Your task to perform on an android device: add a label to a message in the gmail app Image 0: 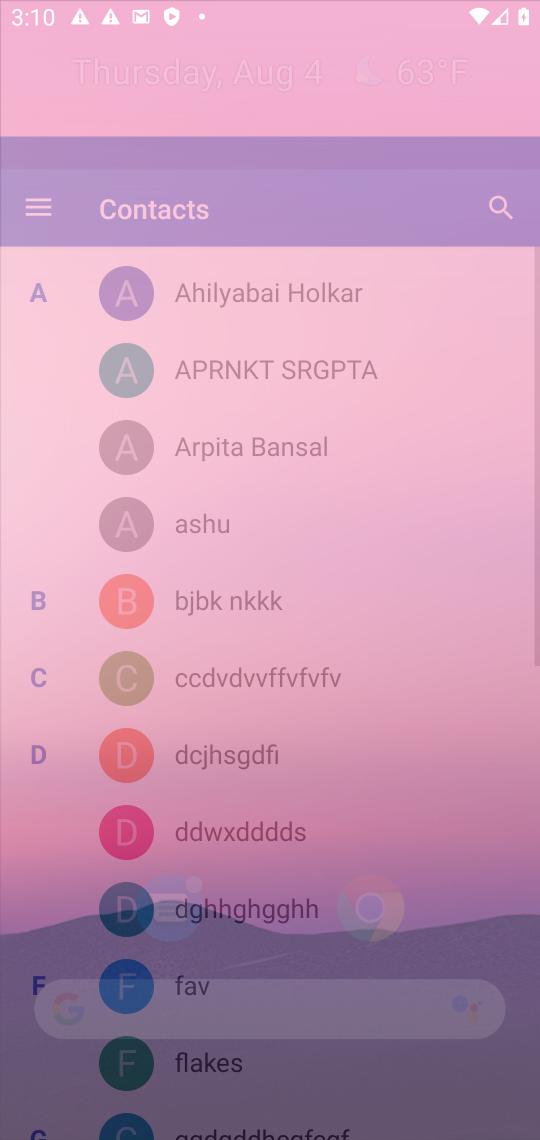
Step 0: press home button
Your task to perform on an android device: add a label to a message in the gmail app Image 1: 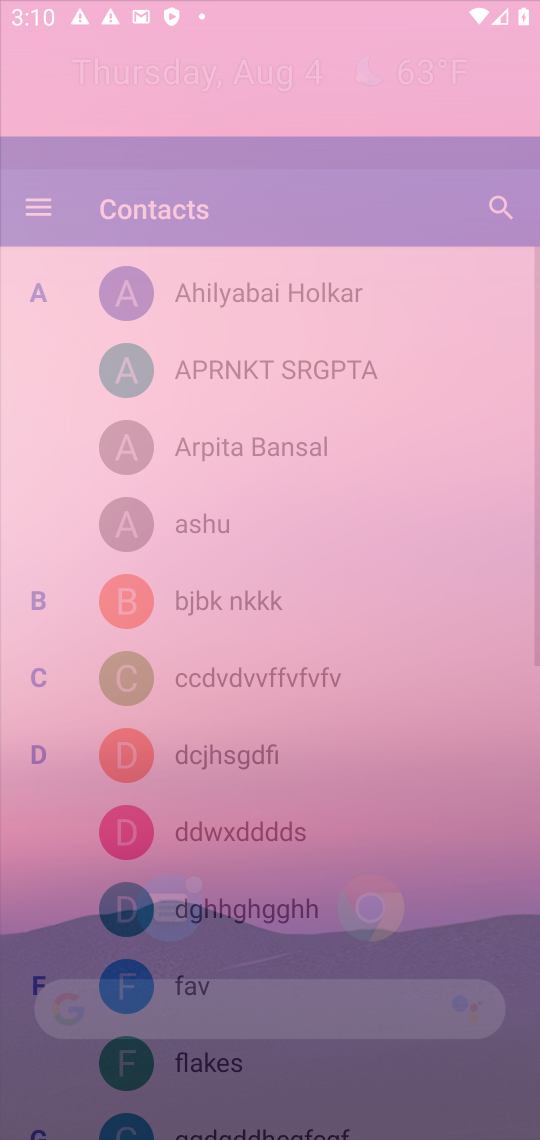
Step 1: click (332, 252)
Your task to perform on an android device: add a label to a message in the gmail app Image 2: 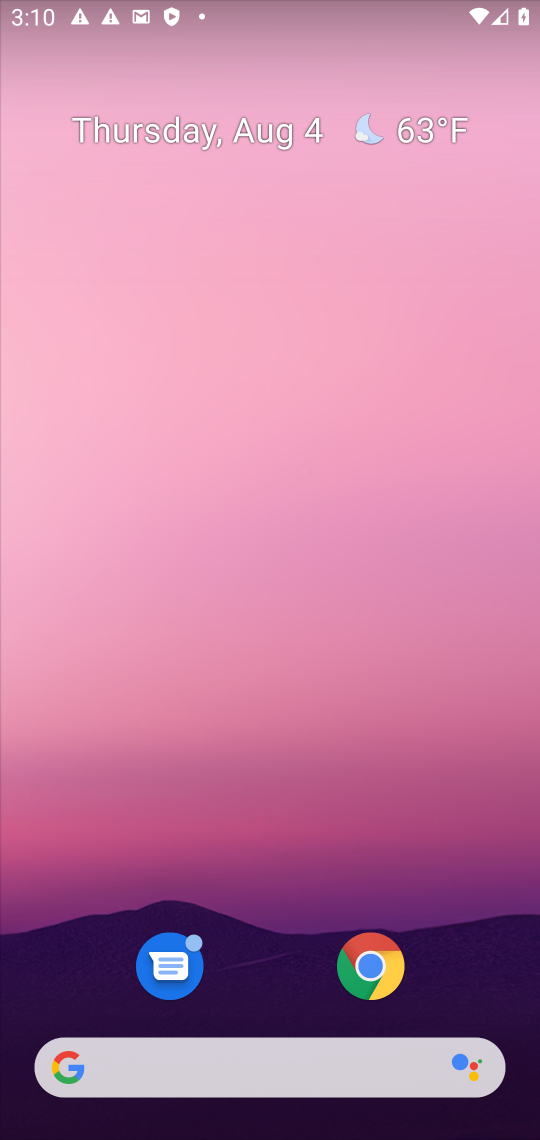
Step 2: drag from (276, 1003) to (276, 314)
Your task to perform on an android device: add a label to a message in the gmail app Image 3: 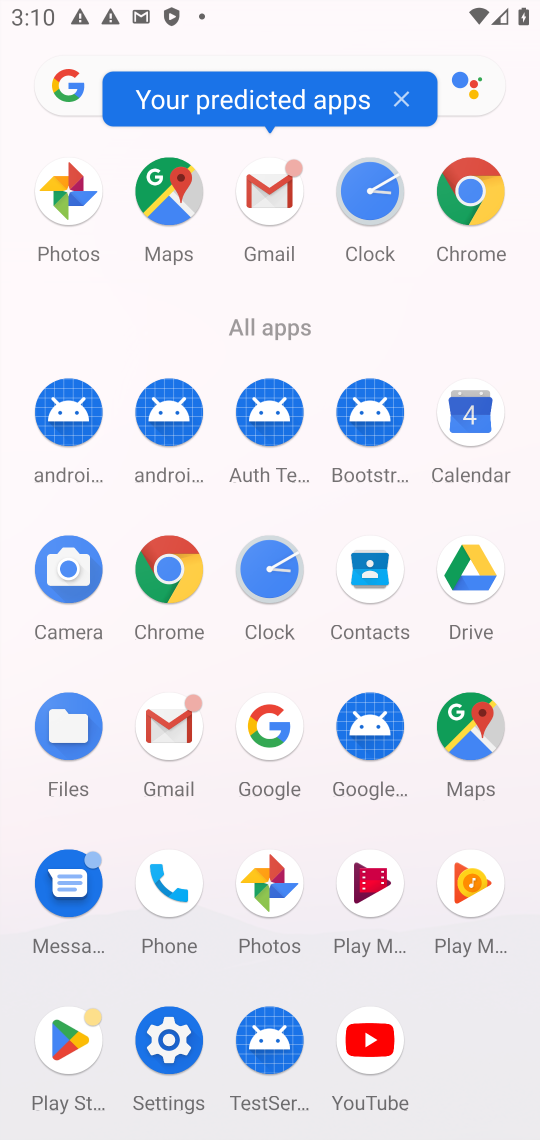
Step 3: click (268, 203)
Your task to perform on an android device: add a label to a message in the gmail app Image 4: 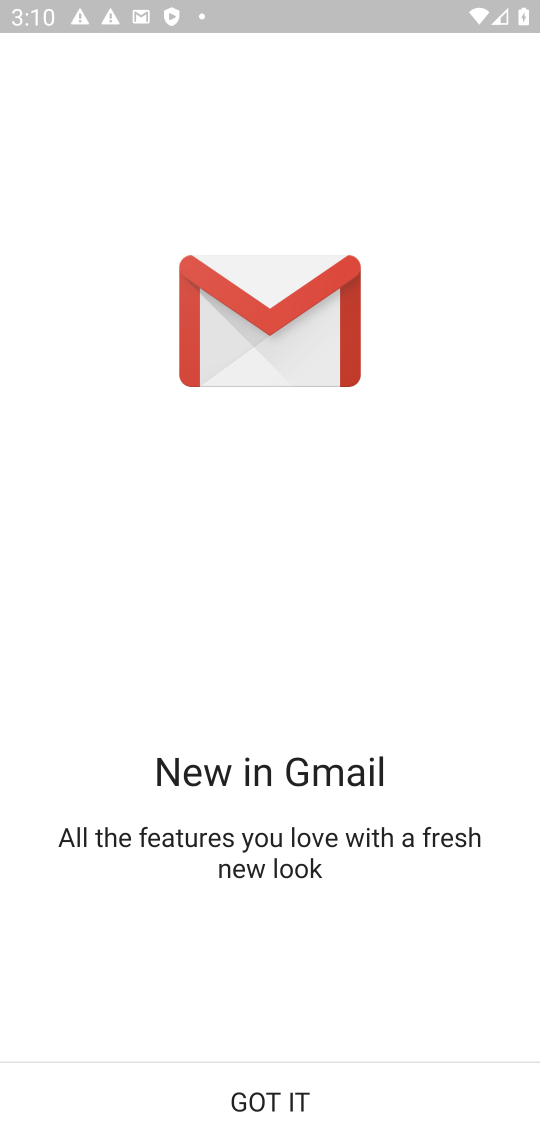
Step 4: click (309, 1124)
Your task to perform on an android device: add a label to a message in the gmail app Image 5: 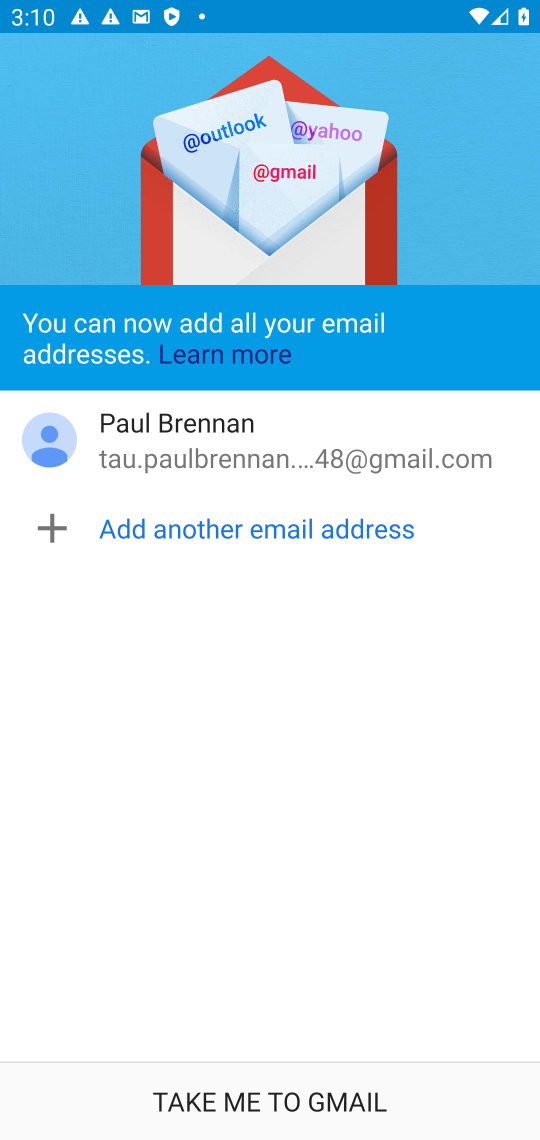
Step 5: click (305, 1117)
Your task to perform on an android device: add a label to a message in the gmail app Image 6: 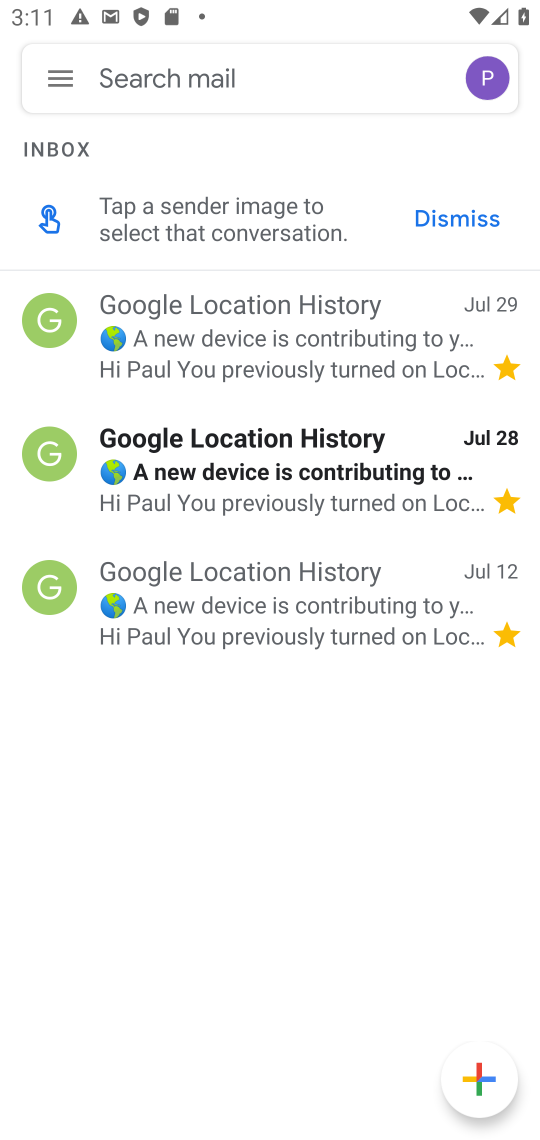
Step 6: click (269, 338)
Your task to perform on an android device: add a label to a message in the gmail app Image 7: 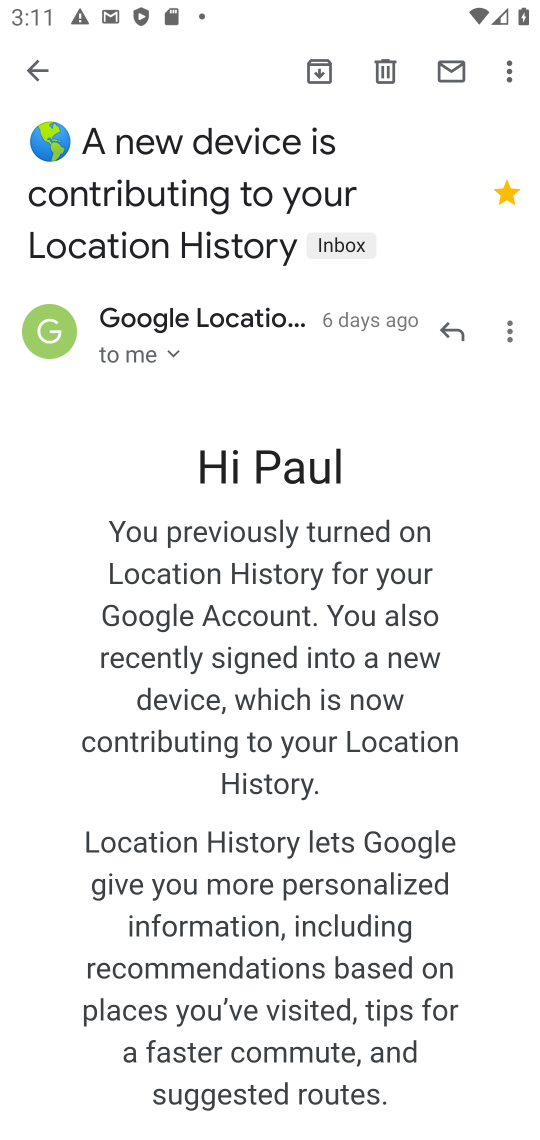
Step 7: click (503, 70)
Your task to perform on an android device: add a label to a message in the gmail app Image 8: 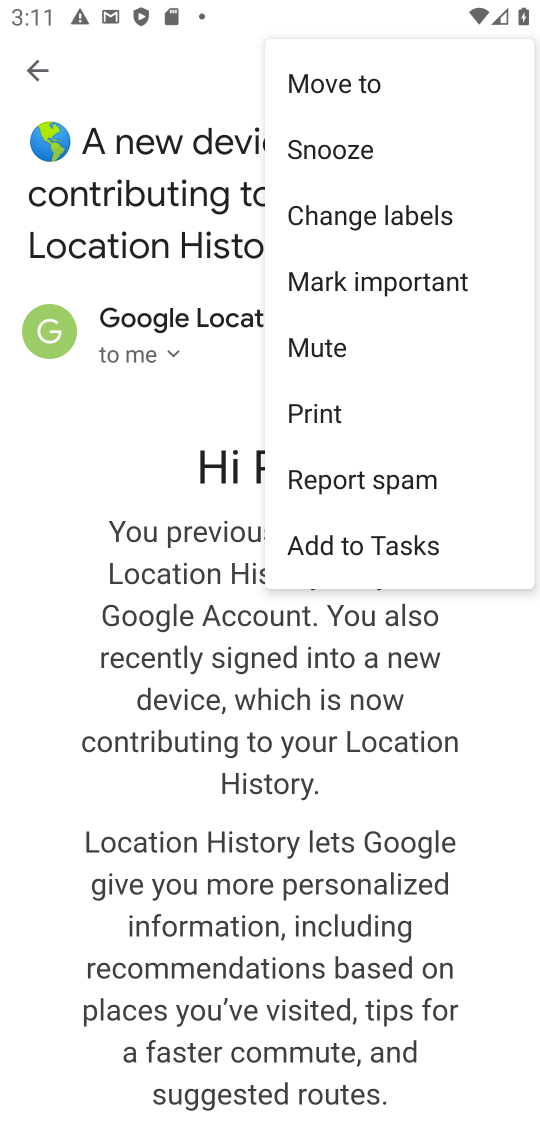
Step 8: click (362, 224)
Your task to perform on an android device: add a label to a message in the gmail app Image 9: 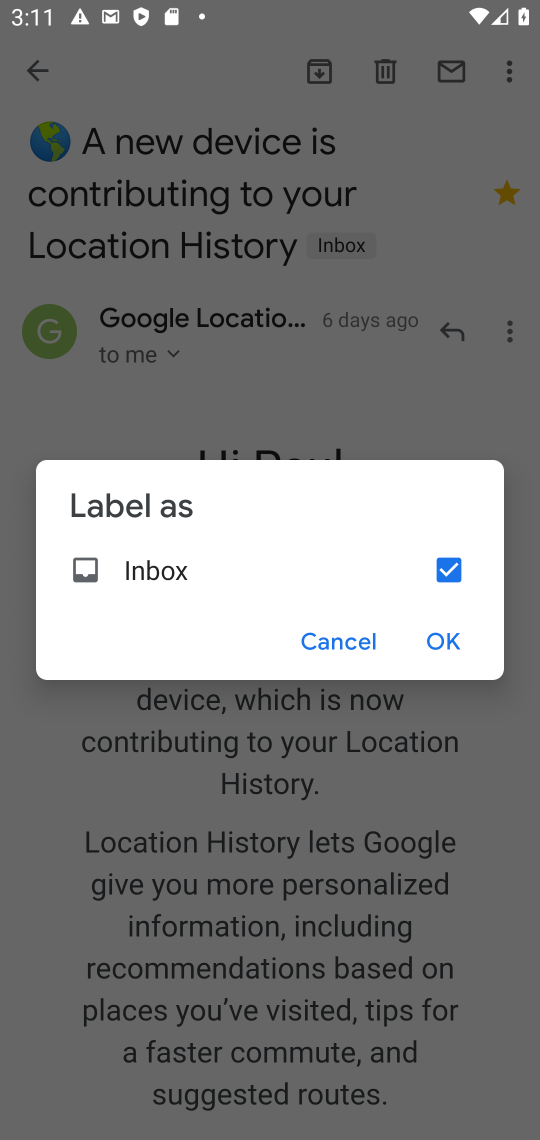
Step 9: click (447, 645)
Your task to perform on an android device: add a label to a message in the gmail app Image 10: 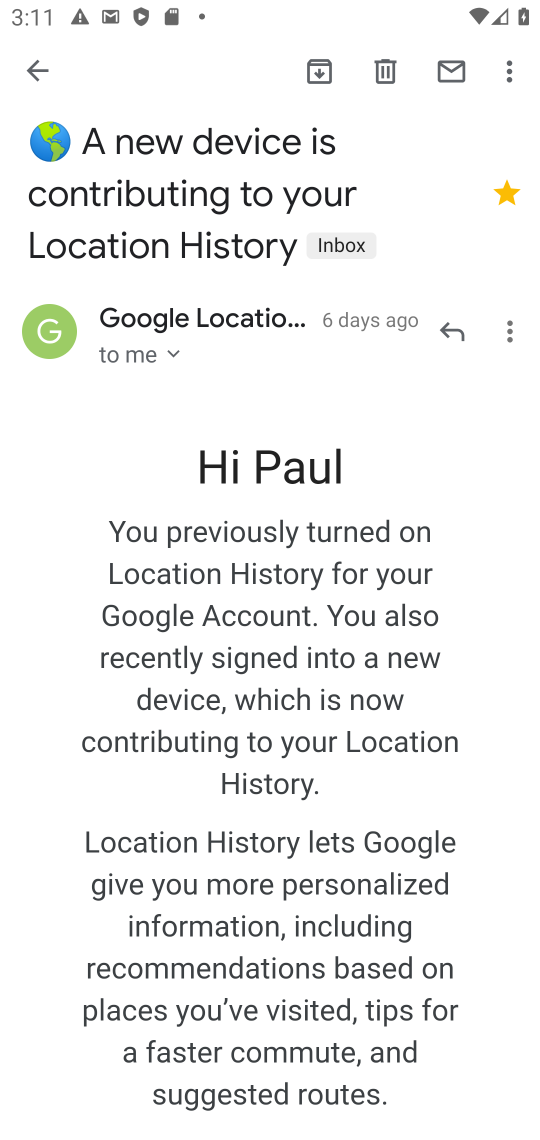
Step 10: task complete